Your task to perform on an android device: install app "Skype" Image 0: 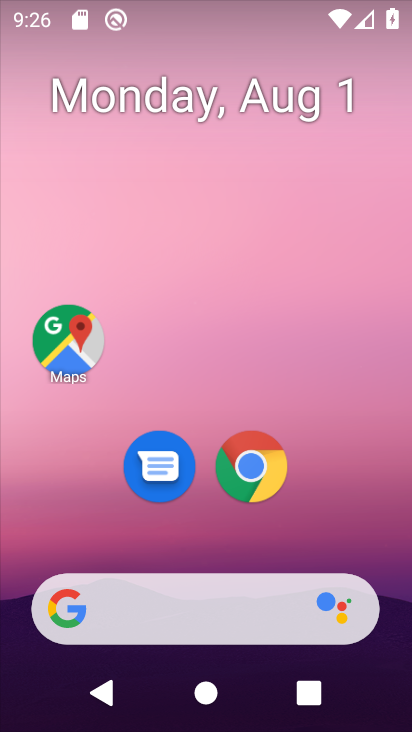
Step 0: drag from (240, 683) to (294, 85)
Your task to perform on an android device: install app "Skype" Image 1: 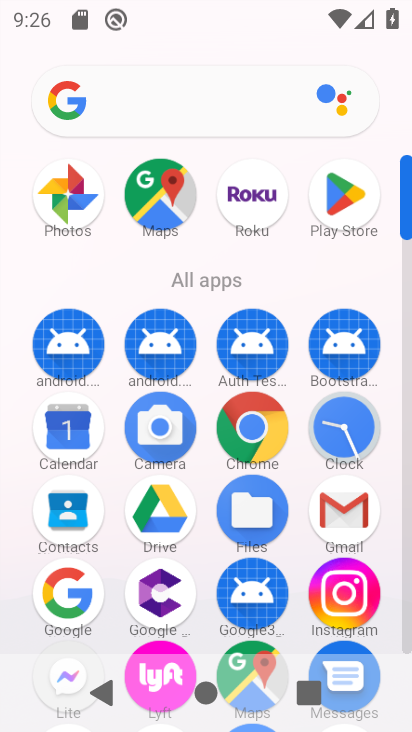
Step 1: click (338, 194)
Your task to perform on an android device: install app "Skype" Image 2: 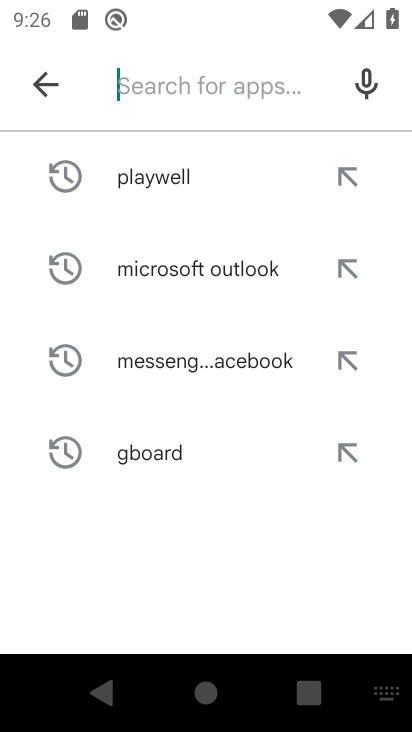
Step 2: type "Skype"
Your task to perform on an android device: install app "Skype" Image 3: 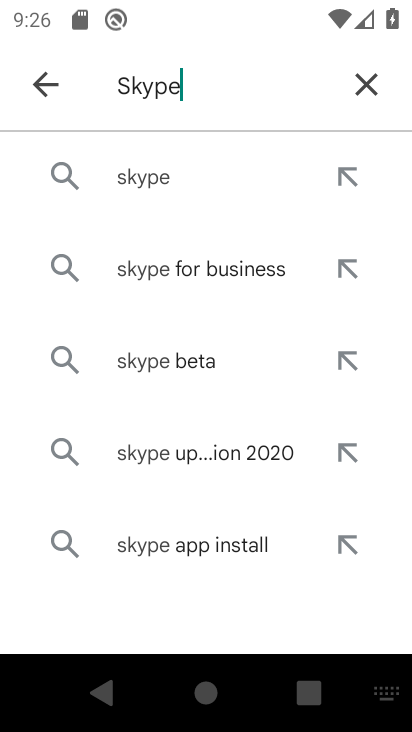
Step 3: click (130, 177)
Your task to perform on an android device: install app "Skype" Image 4: 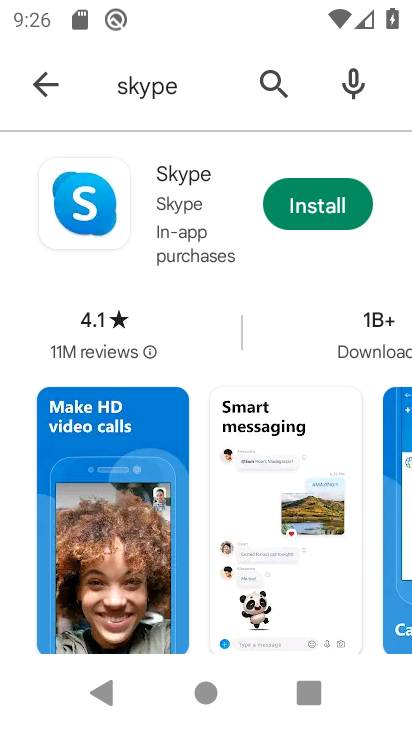
Step 4: click (312, 201)
Your task to perform on an android device: install app "Skype" Image 5: 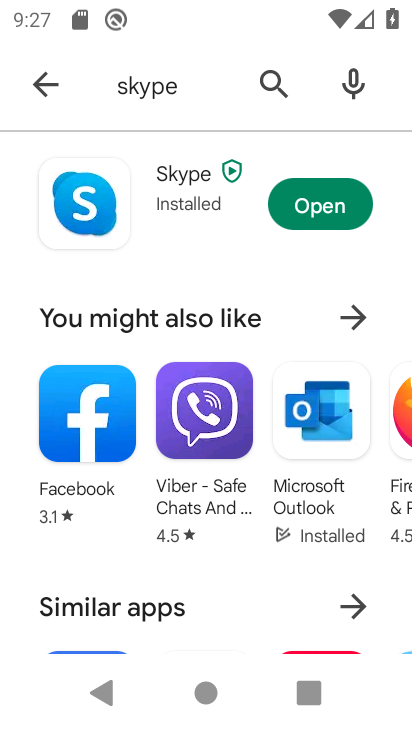
Step 5: task complete